Your task to perform on an android device: Go to Maps Image 0: 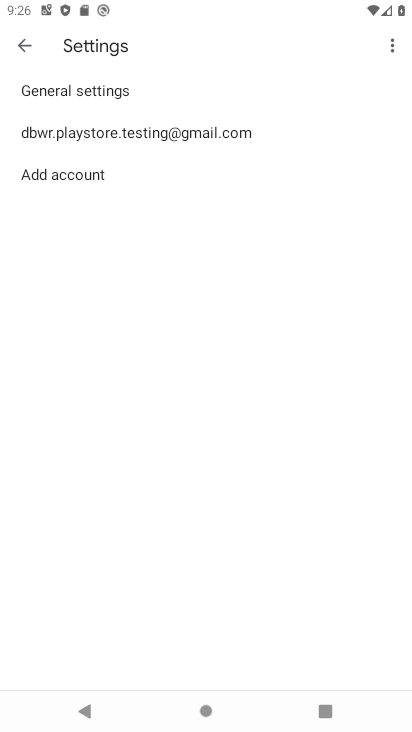
Step 0: press home button
Your task to perform on an android device: Go to Maps Image 1: 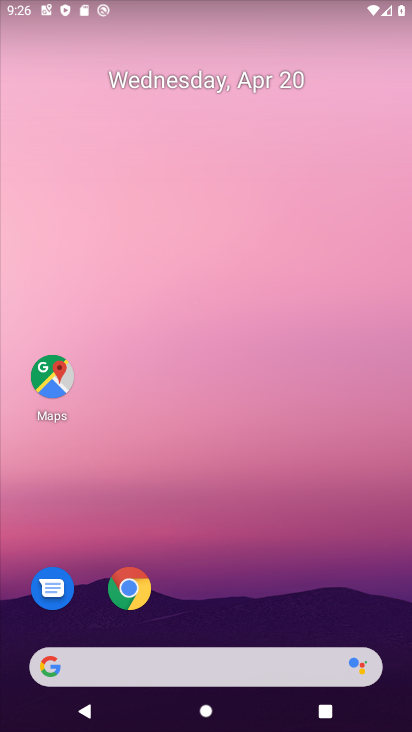
Step 1: click (55, 381)
Your task to perform on an android device: Go to Maps Image 2: 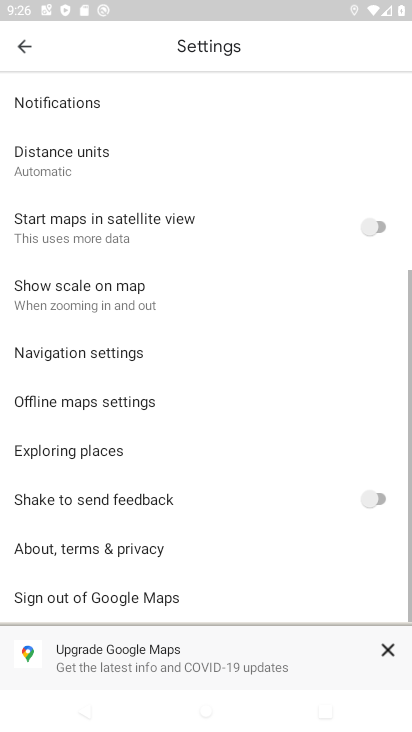
Step 2: click (23, 40)
Your task to perform on an android device: Go to Maps Image 3: 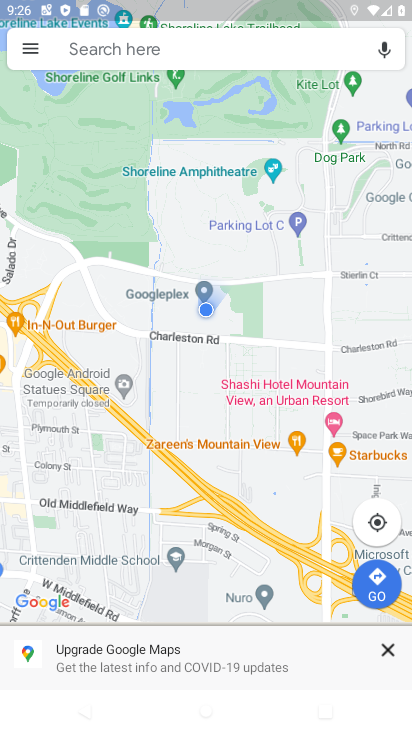
Step 3: task complete